Your task to perform on an android device: Open Maps and search for coffee Image 0: 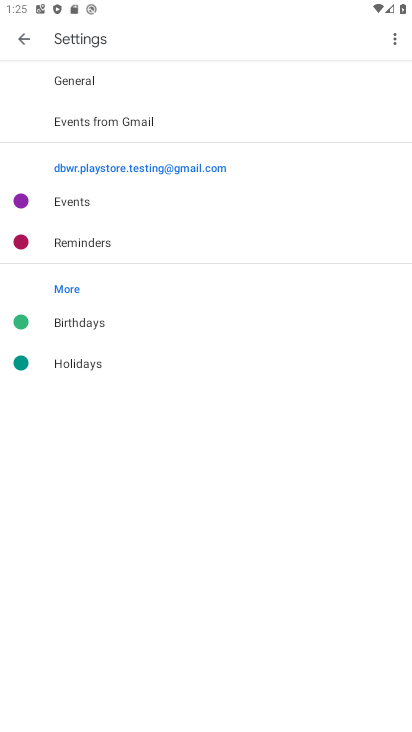
Step 0: press home button
Your task to perform on an android device: Open Maps and search for coffee Image 1: 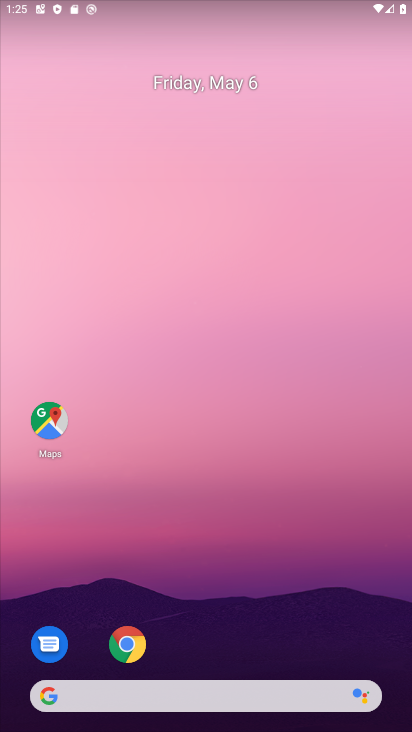
Step 1: click (58, 418)
Your task to perform on an android device: Open Maps and search for coffee Image 2: 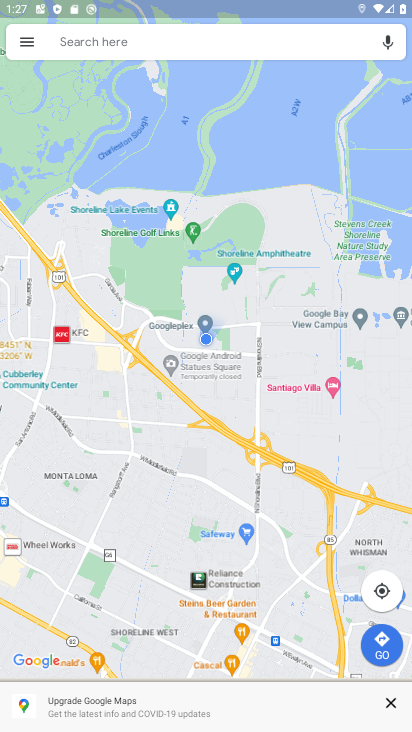
Step 2: click (159, 42)
Your task to perform on an android device: Open Maps and search for coffee Image 3: 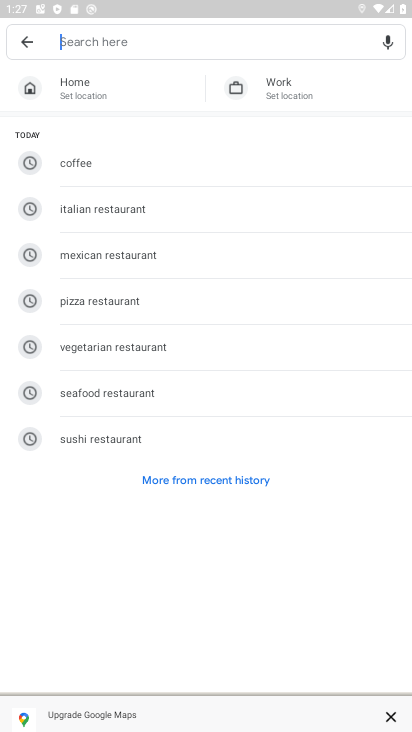
Step 3: click (159, 42)
Your task to perform on an android device: Open Maps and search for coffee Image 4: 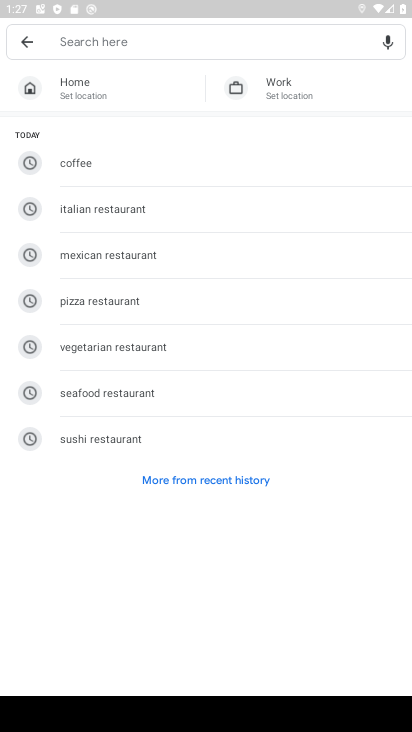
Step 4: click (105, 175)
Your task to perform on an android device: Open Maps and search for coffee Image 5: 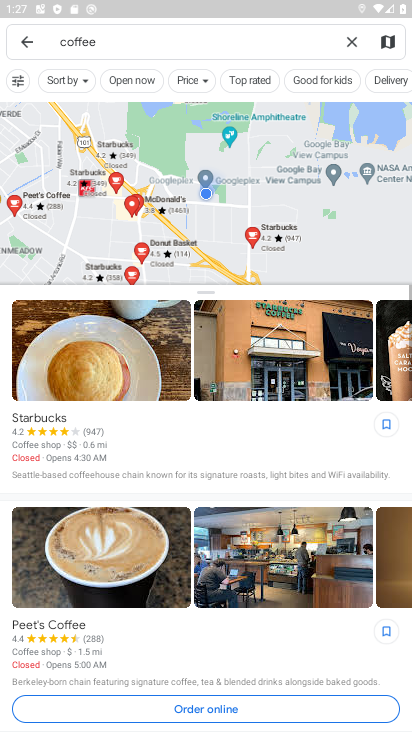
Step 5: task complete